Your task to perform on an android device: Open location settings Image 0: 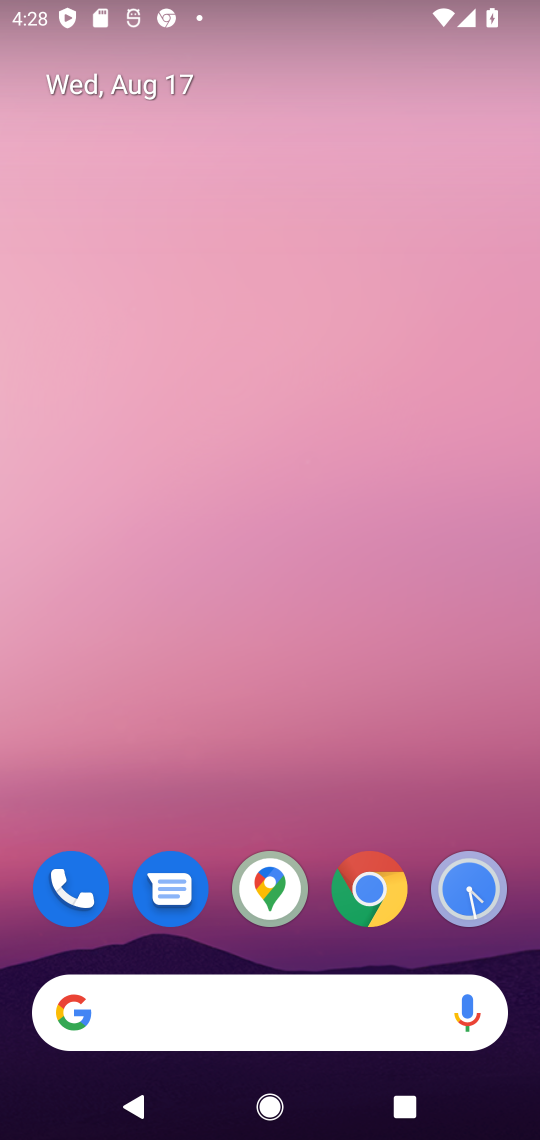
Step 0: drag from (300, 780) to (242, 23)
Your task to perform on an android device: Open location settings Image 1: 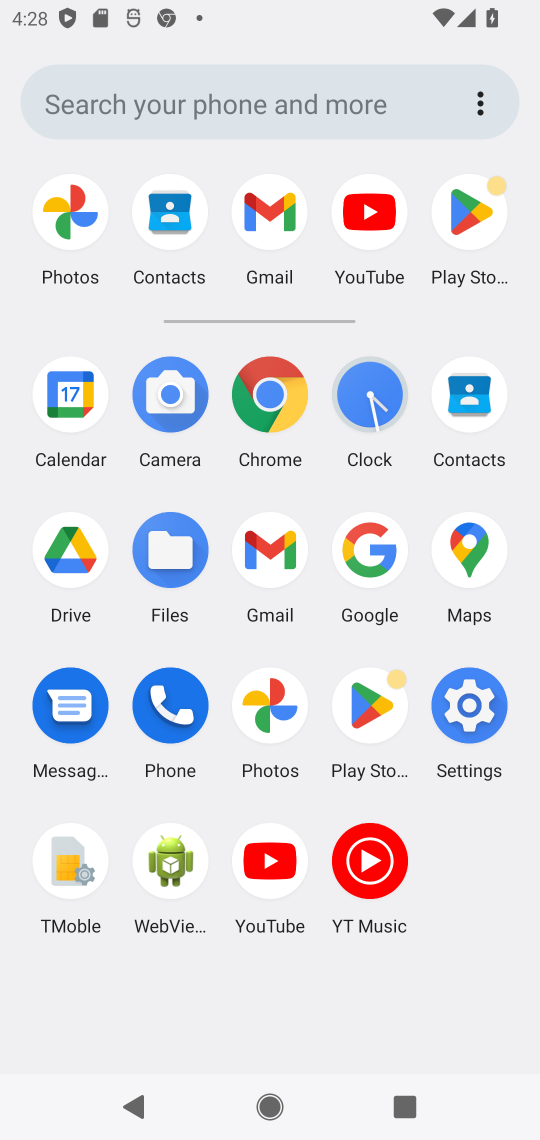
Step 1: click (472, 711)
Your task to perform on an android device: Open location settings Image 2: 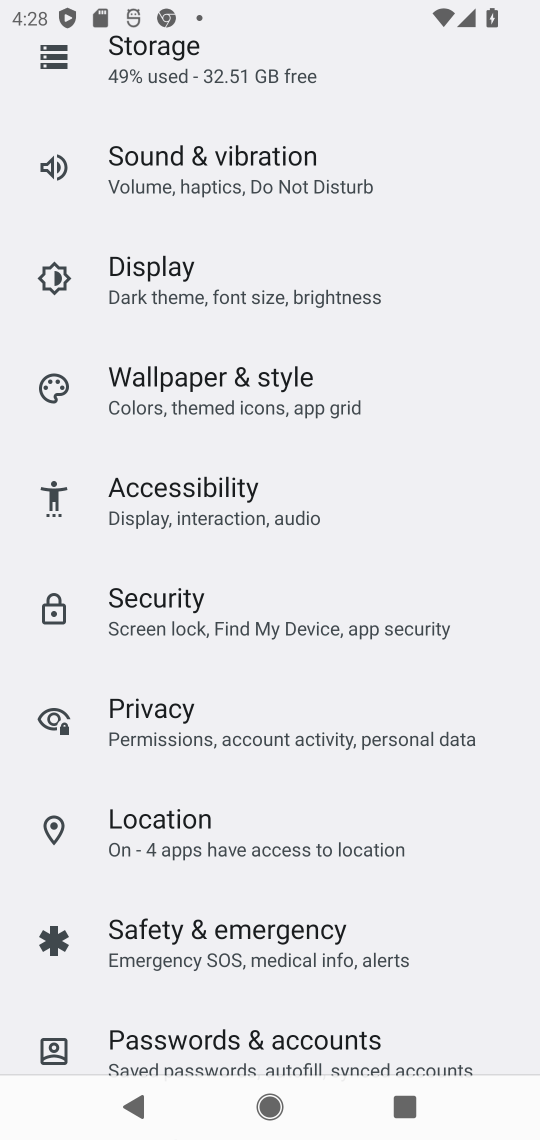
Step 2: click (166, 815)
Your task to perform on an android device: Open location settings Image 3: 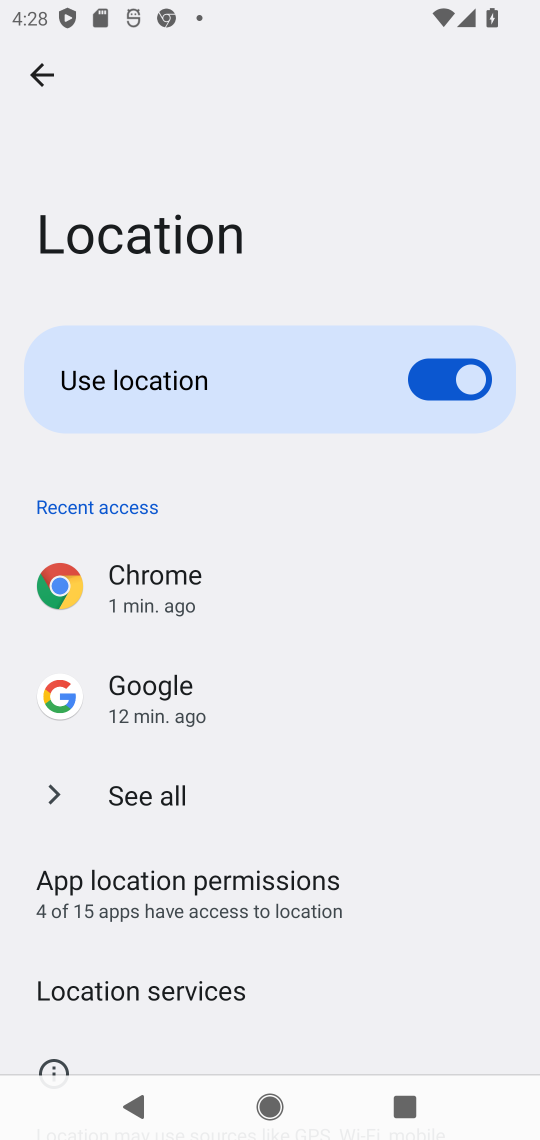
Step 3: task complete